Your task to perform on an android device: turn smart compose on in the gmail app Image 0: 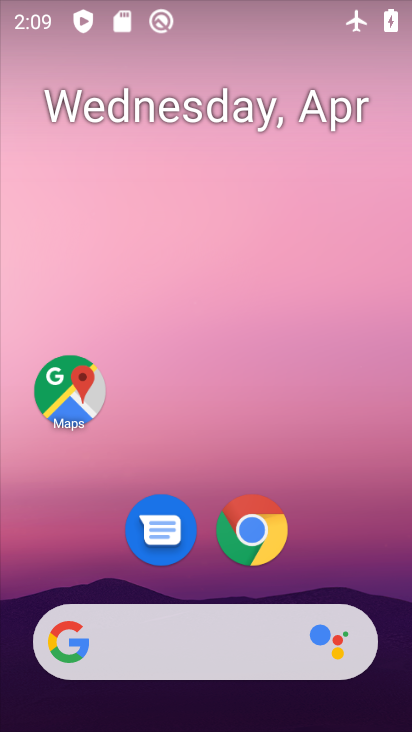
Step 0: drag from (385, 525) to (283, 165)
Your task to perform on an android device: turn smart compose on in the gmail app Image 1: 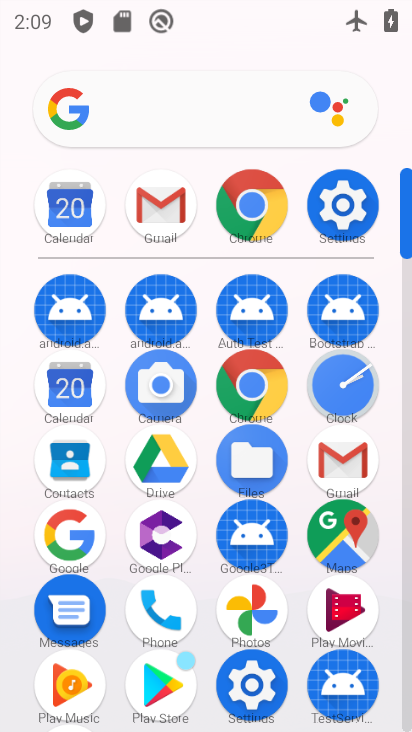
Step 1: click (152, 214)
Your task to perform on an android device: turn smart compose on in the gmail app Image 2: 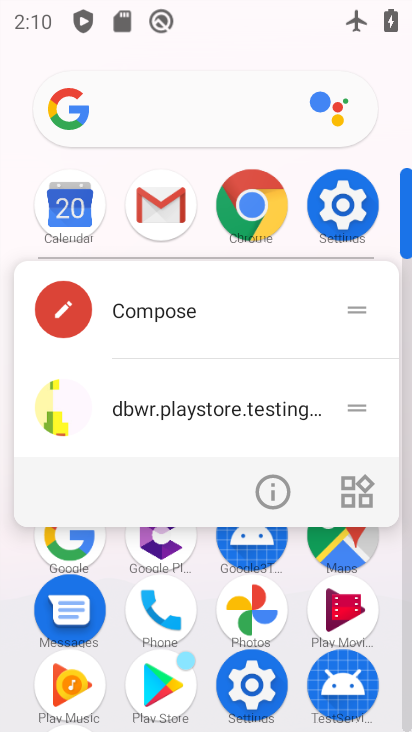
Step 2: click (152, 211)
Your task to perform on an android device: turn smart compose on in the gmail app Image 3: 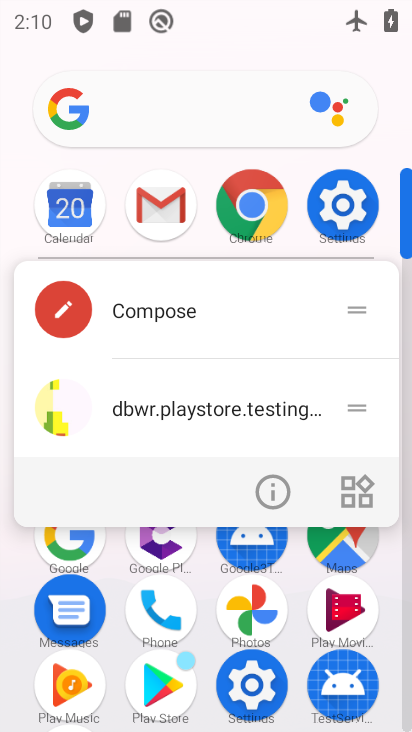
Step 3: click (203, 169)
Your task to perform on an android device: turn smart compose on in the gmail app Image 4: 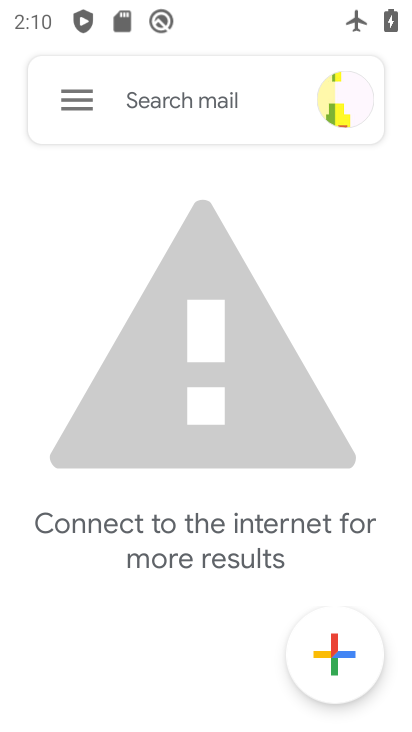
Step 4: click (75, 102)
Your task to perform on an android device: turn smart compose on in the gmail app Image 5: 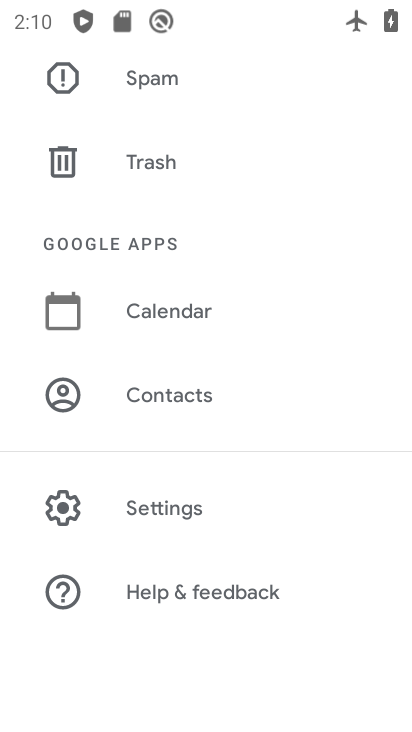
Step 5: click (183, 506)
Your task to perform on an android device: turn smart compose on in the gmail app Image 6: 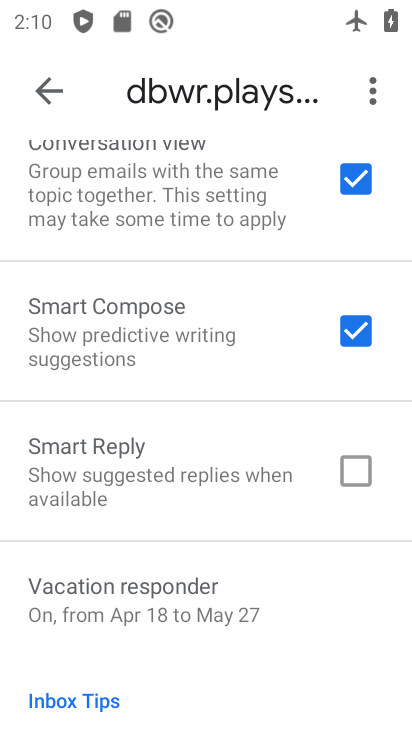
Step 6: task complete